Your task to perform on an android device: Search for pizza restaurants on Maps Image 0: 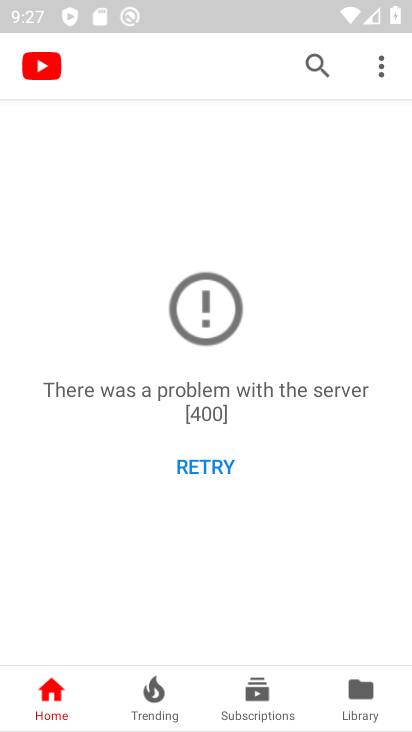
Step 0: press home button
Your task to perform on an android device: Search for pizza restaurants on Maps Image 1: 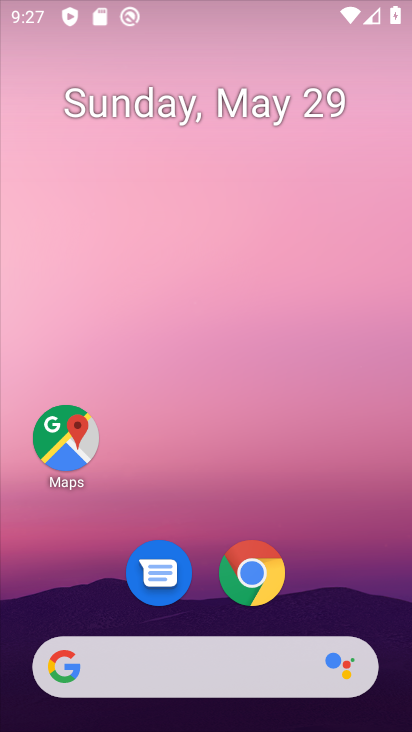
Step 1: click (76, 453)
Your task to perform on an android device: Search for pizza restaurants on Maps Image 2: 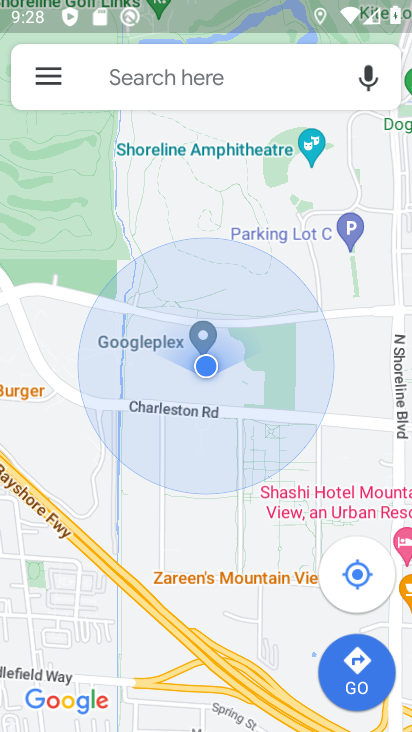
Step 2: click (207, 87)
Your task to perform on an android device: Search for pizza restaurants on Maps Image 3: 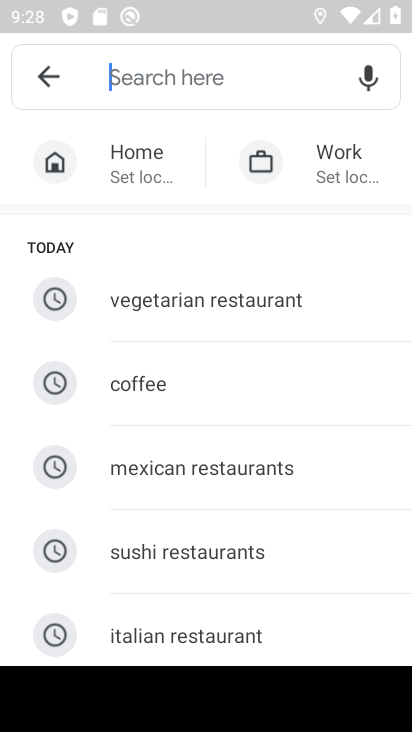
Step 3: type "pizza restaurants"
Your task to perform on an android device: Search for pizza restaurants on Maps Image 4: 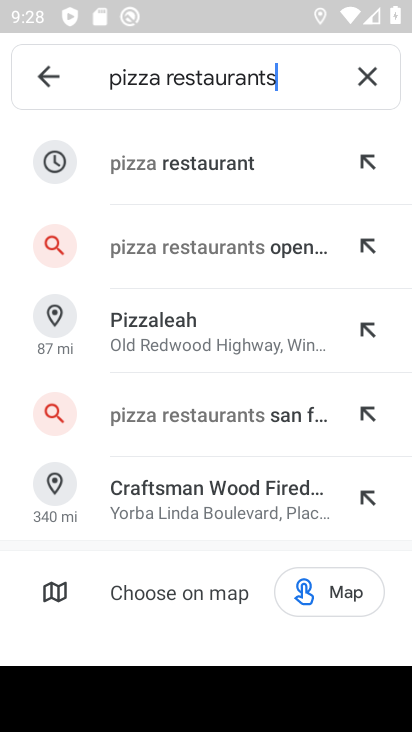
Step 4: click (265, 164)
Your task to perform on an android device: Search for pizza restaurants on Maps Image 5: 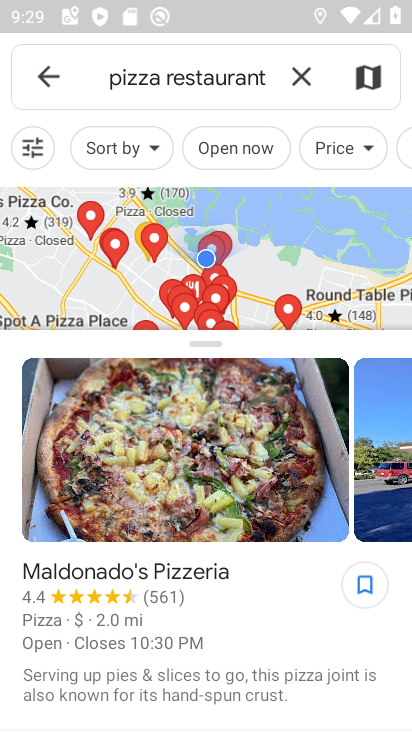
Step 5: task complete